Your task to perform on an android device: turn off smart reply in the gmail app Image 0: 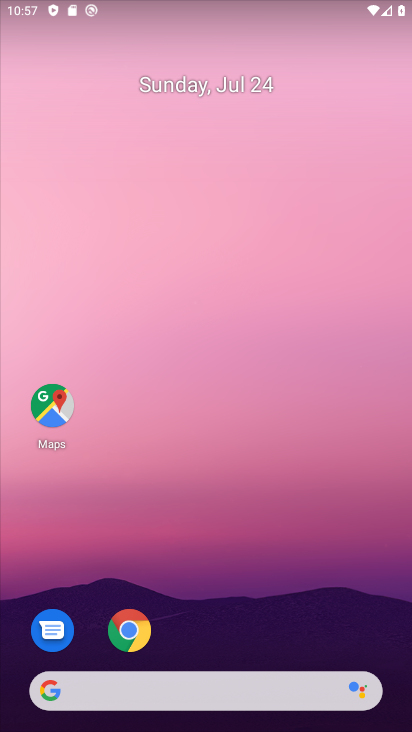
Step 0: drag from (282, 633) to (272, 17)
Your task to perform on an android device: turn off smart reply in the gmail app Image 1: 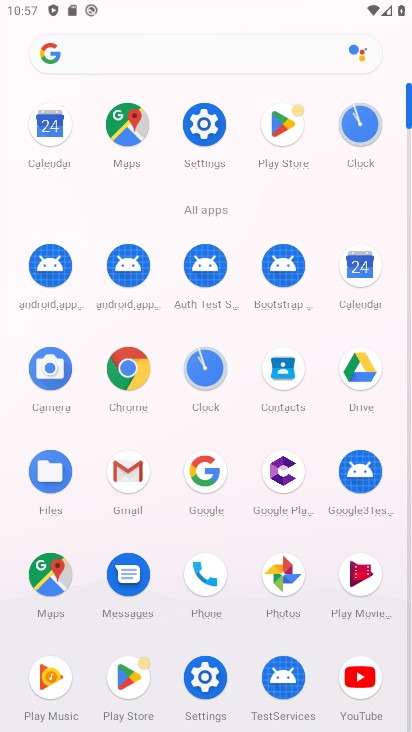
Step 1: click (125, 463)
Your task to perform on an android device: turn off smart reply in the gmail app Image 2: 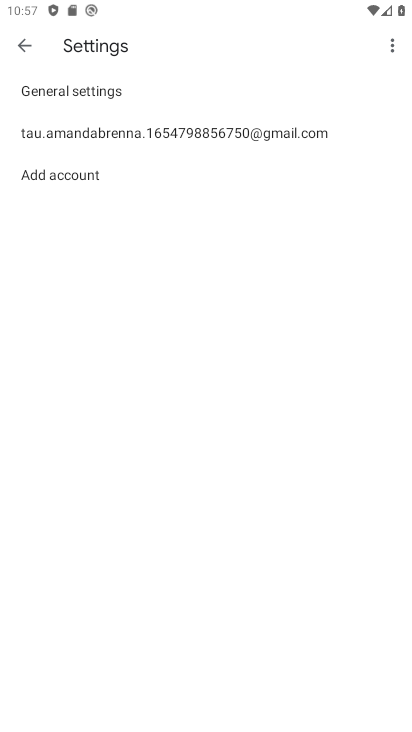
Step 2: click (185, 137)
Your task to perform on an android device: turn off smart reply in the gmail app Image 3: 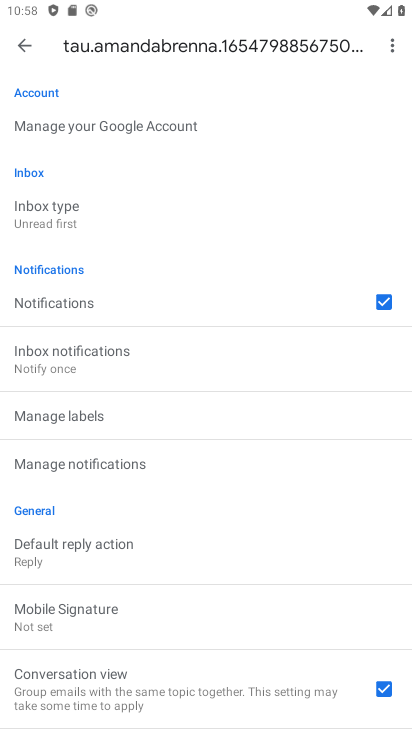
Step 3: drag from (128, 658) to (138, 271)
Your task to perform on an android device: turn off smart reply in the gmail app Image 4: 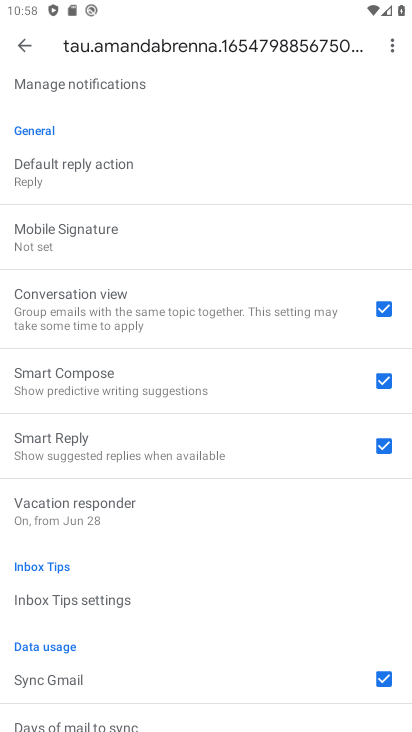
Step 4: click (375, 451)
Your task to perform on an android device: turn off smart reply in the gmail app Image 5: 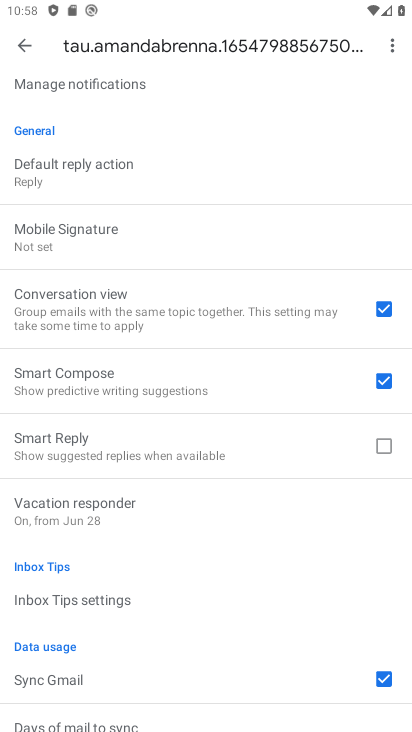
Step 5: task complete